Your task to perform on an android device: Search for "rayovac triple a" on newegg.com, select the first entry, and add it to the cart. Image 0: 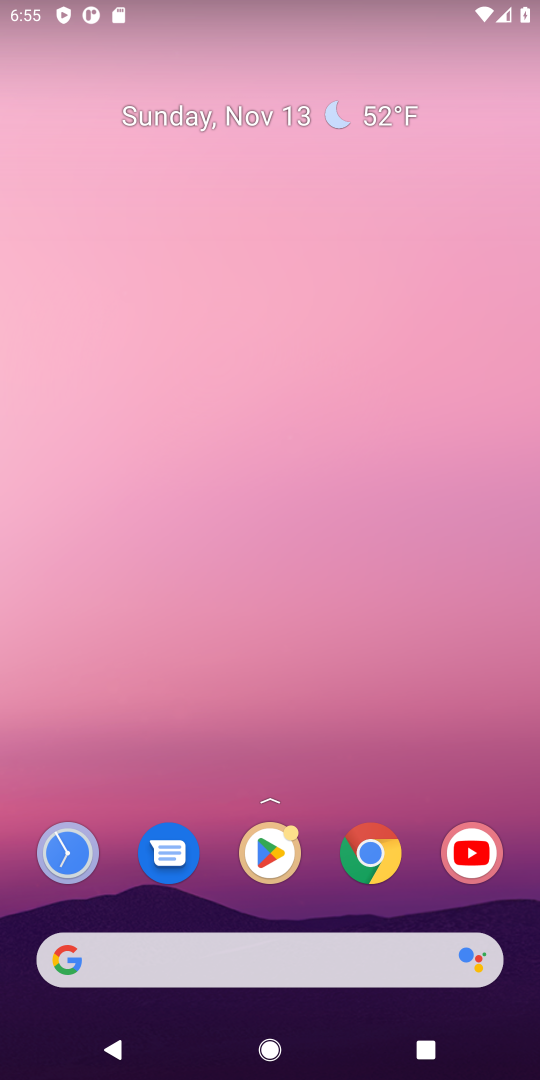
Step 0: press home button
Your task to perform on an android device: Search for "rayovac triple a" on newegg.com, select the first entry, and add it to the cart. Image 1: 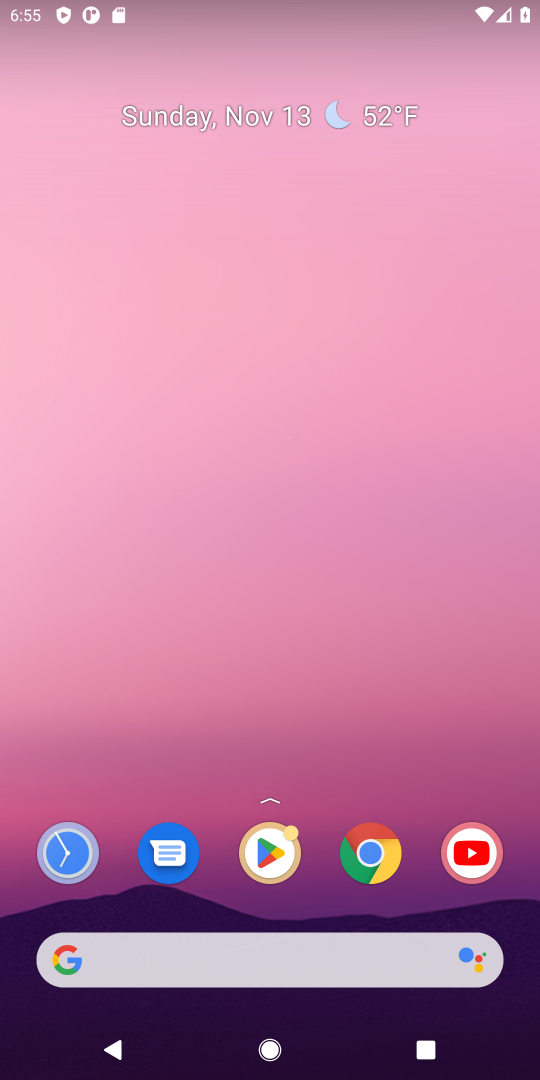
Step 1: click (107, 957)
Your task to perform on an android device: Search for "rayovac triple a" on newegg.com, select the first entry, and add it to the cart. Image 2: 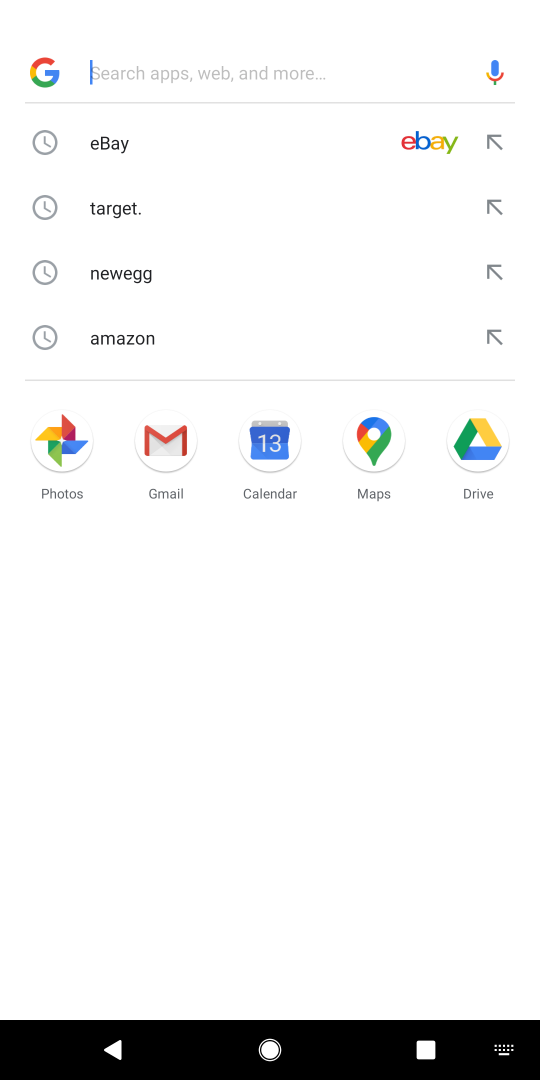
Step 2: type "newegg.com"
Your task to perform on an android device: Search for "rayovac triple a" on newegg.com, select the first entry, and add it to the cart. Image 3: 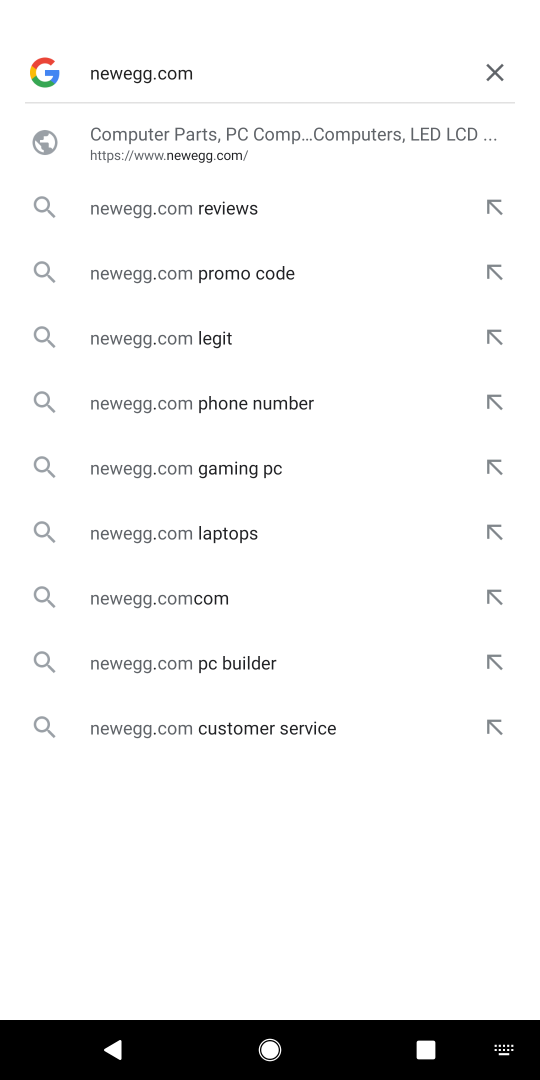
Step 3: press enter
Your task to perform on an android device: Search for "rayovac triple a" on newegg.com, select the first entry, and add it to the cart. Image 4: 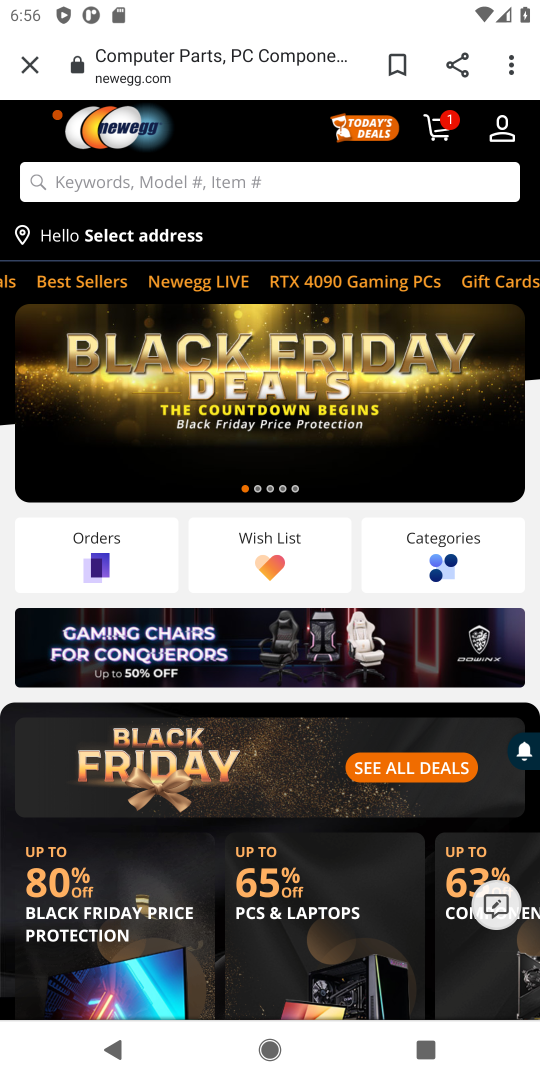
Step 4: click (83, 184)
Your task to perform on an android device: Search for "rayovac triple a" on newegg.com, select the first entry, and add it to the cart. Image 5: 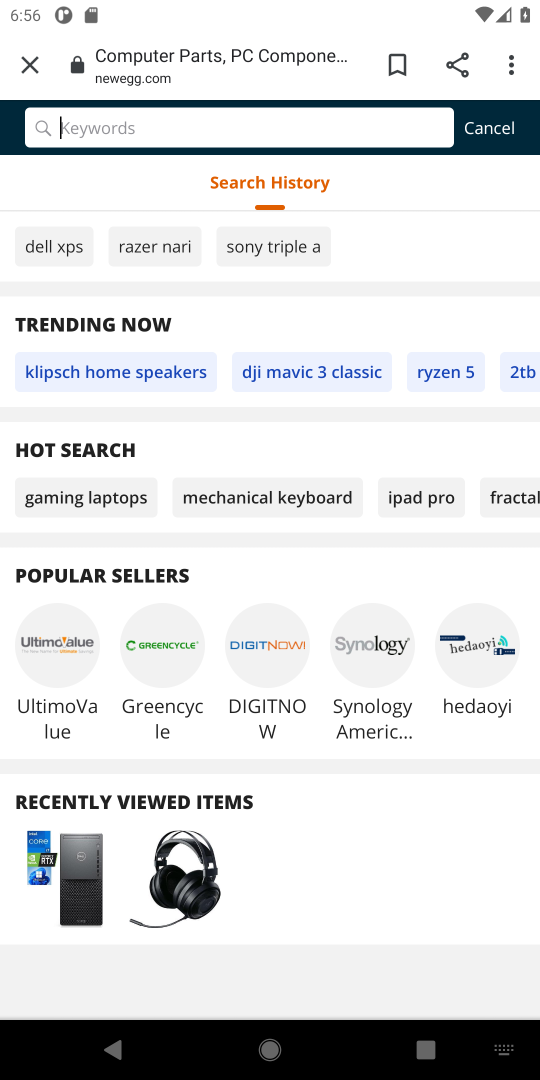
Step 5: type "rayovac triple a"
Your task to perform on an android device: Search for "rayovac triple a" on newegg.com, select the first entry, and add it to the cart. Image 6: 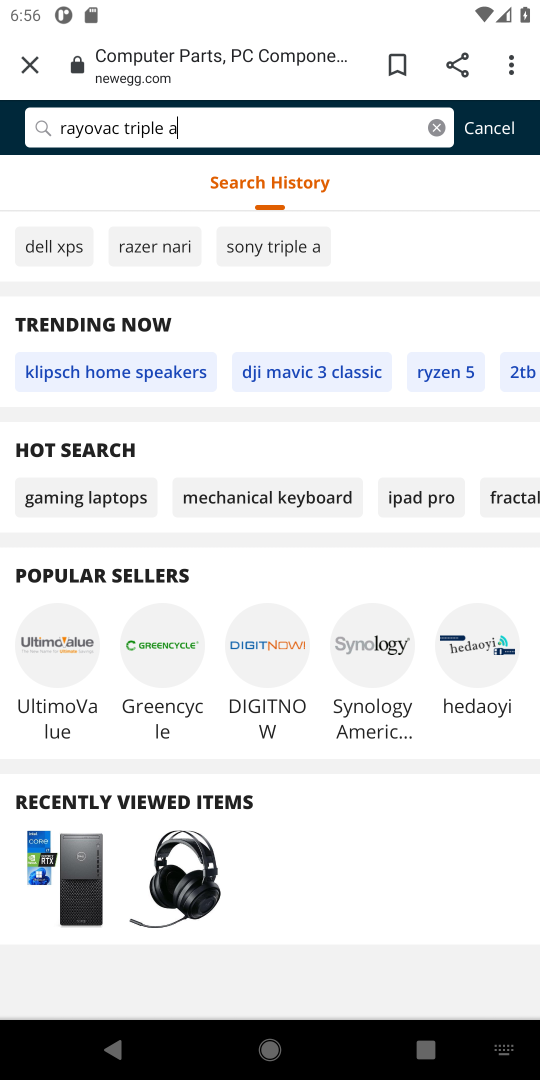
Step 6: press enter
Your task to perform on an android device: Search for "rayovac triple a" on newegg.com, select the first entry, and add it to the cart. Image 7: 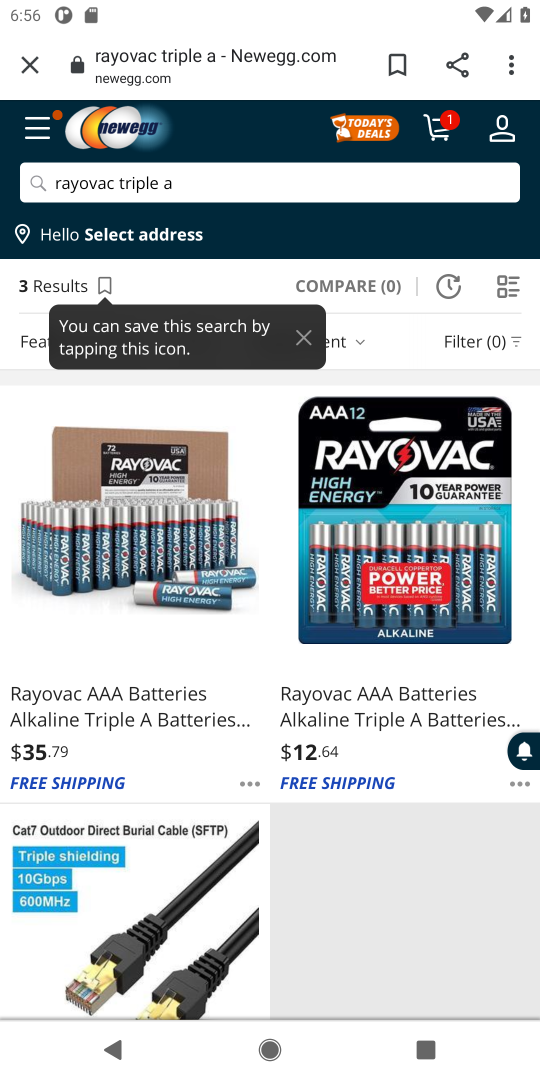
Step 7: click (104, 702)
Your task to perform on an android device: Search for "rayovac triple a" on newegg.com, select the first entry, and add it to the cart. Image 8: 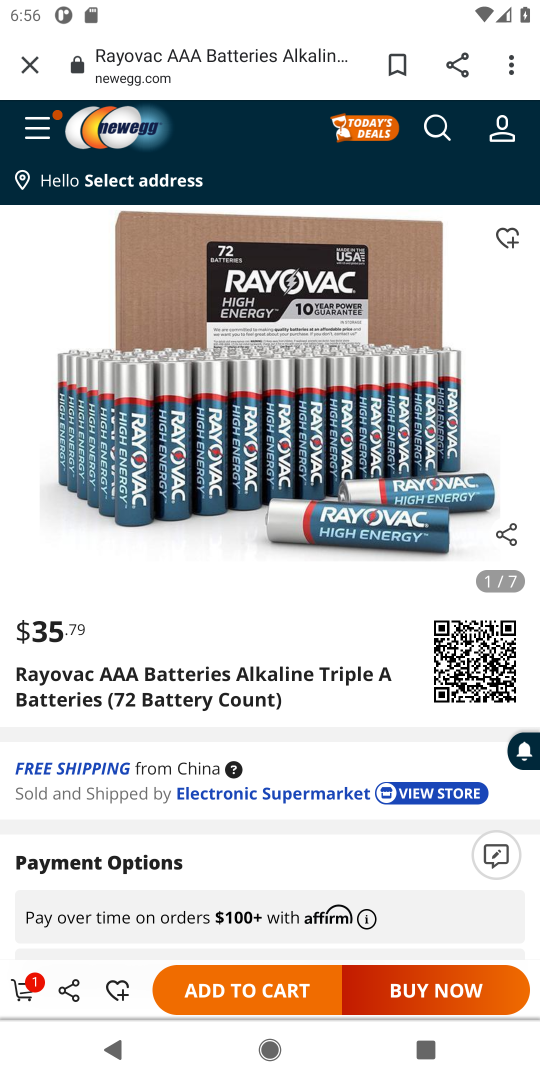
Step 8: click (210, 999)
Your task to perform on an android device: Search for "rayovac triple a" on newegg.com, select the first entry, and add it to the cart. Image 9: 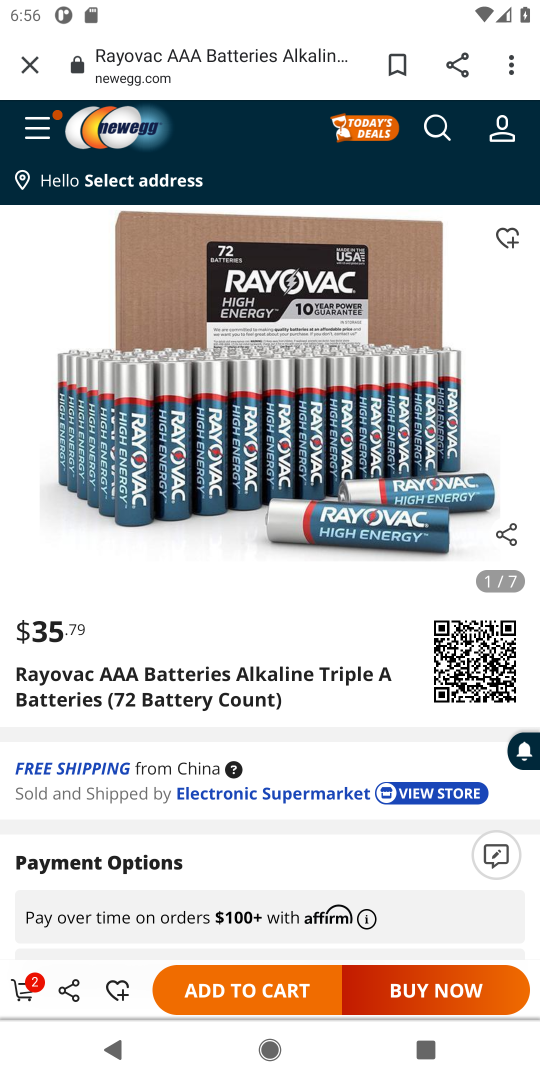
Step 9: task complete